Your task to perform on an android device: toggle sleep mode Image 0: 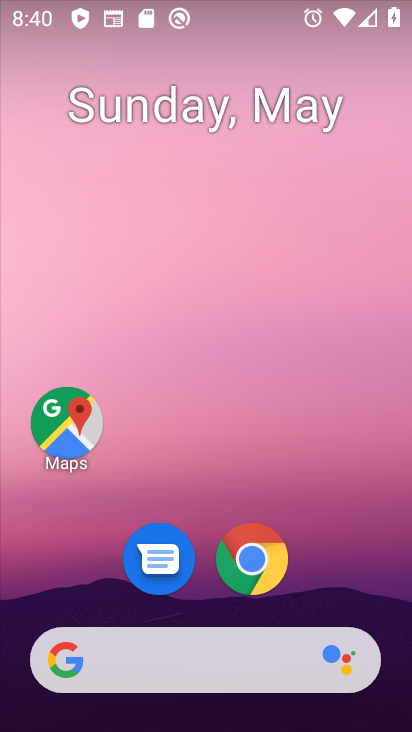
Step 0: drag from (150, 423) to (410, 66)
Your task to perform on an android device: toggle sleep mode Image 1: 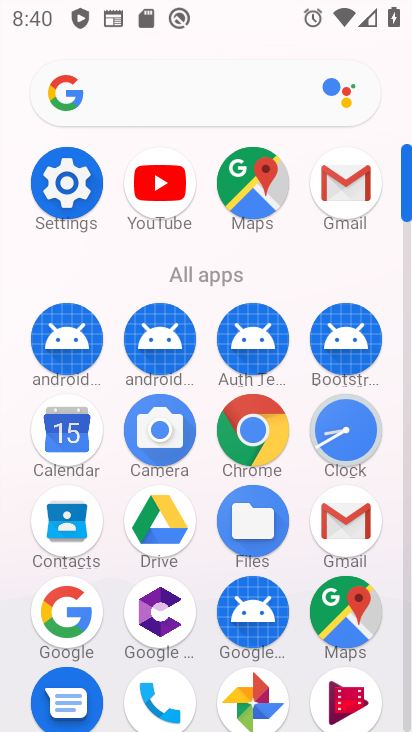
Step 1: click (72, 175)
Your task to perform on an android device: toggle sleep mode Image 2: 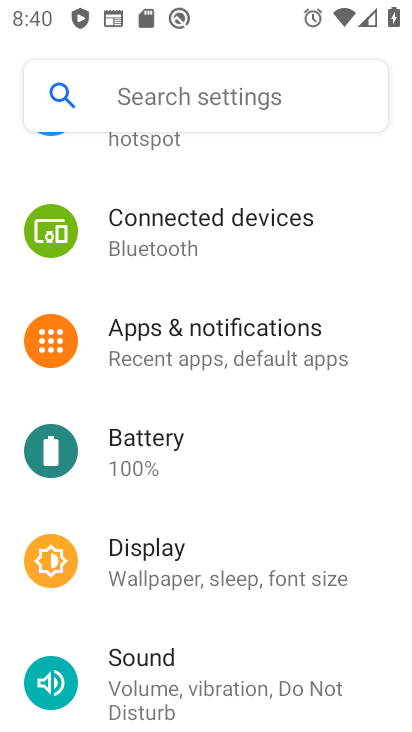
Step 2: click (256, 583)
Your task to perform on an android device: toggle sleep mode Image 3: 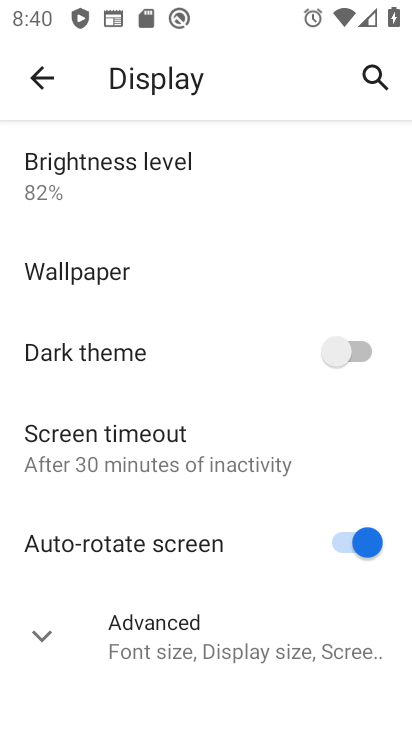
Step 3: task complete